Your task to perform on an android device: Open Amazon Image 0: 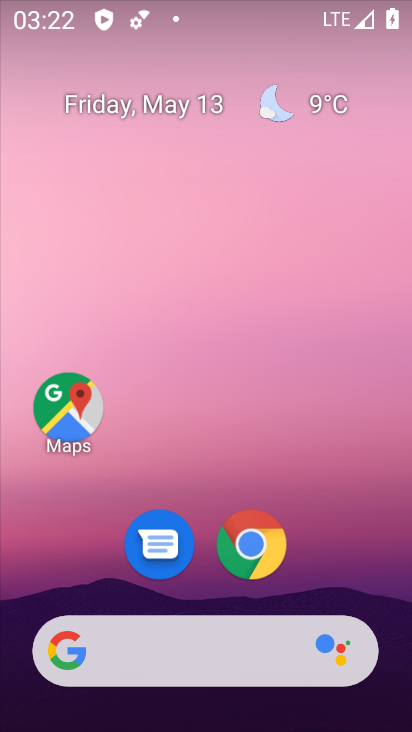
Step 0: drag from (335, 515) to (263, 32)
Your task to perform on an android device: Open Amazon Image 1: 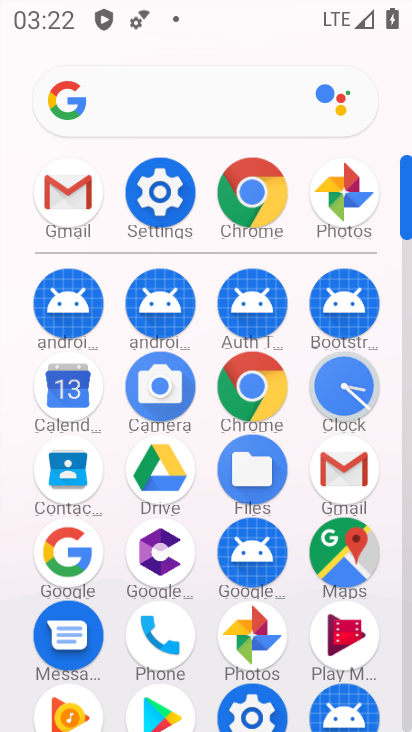
Step 1: click (250, 184)
Your task to perform on an android device: Open Amazon Image 2: 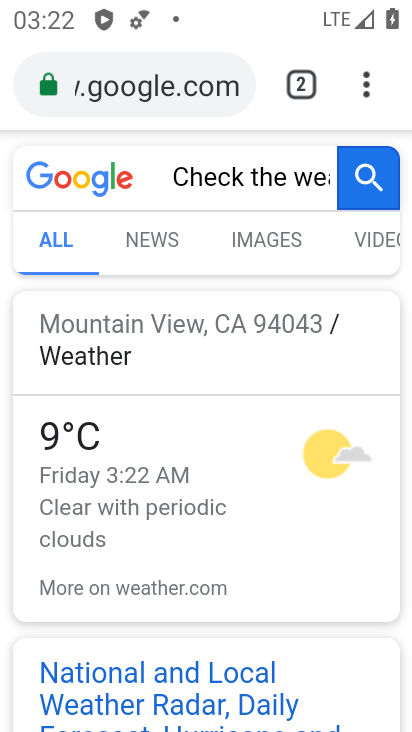
Step 2: click (181, 66)
Your task to perform on an android device: Open Amazon Image 3: 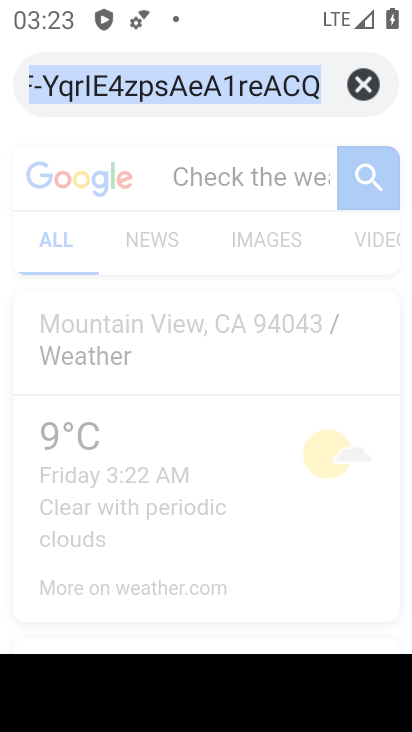
Step 3: click (355, 74)
Your task to perform on an android device: Open Amazon Image 4: 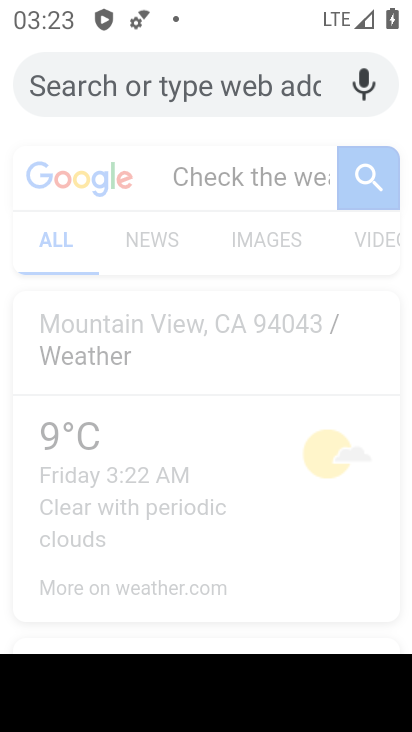
Step 4: type "Amazon"
Your task to perform on an android device: Open Amazon Image 5: 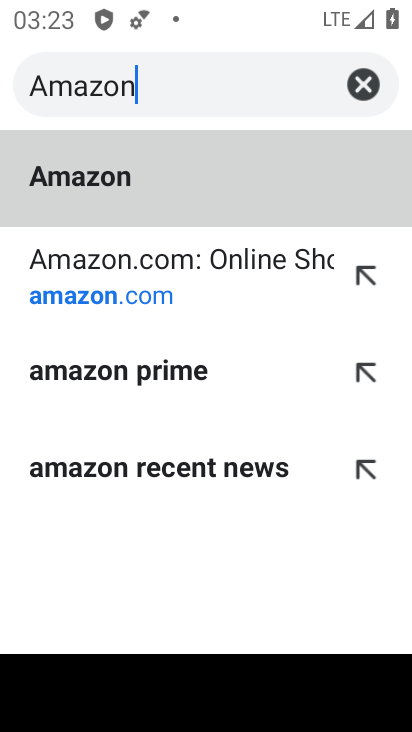
Step 5: click (79, 258)
Your task to perform on an android device: Open Amazon Image 6: 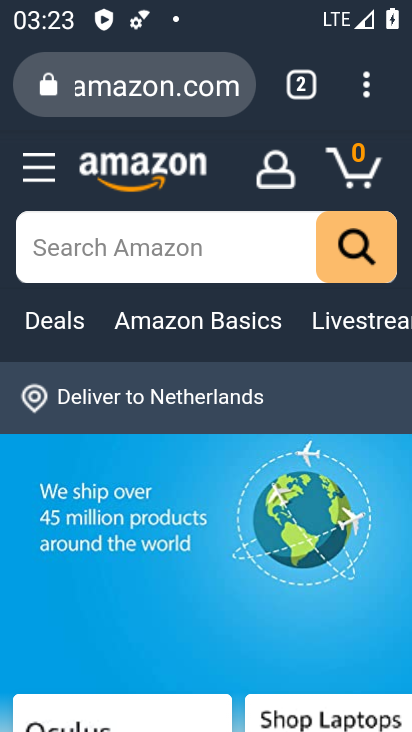
Step 6: task complete